Your task to perform on an android device: change notification settings in the gmail app Image 0: 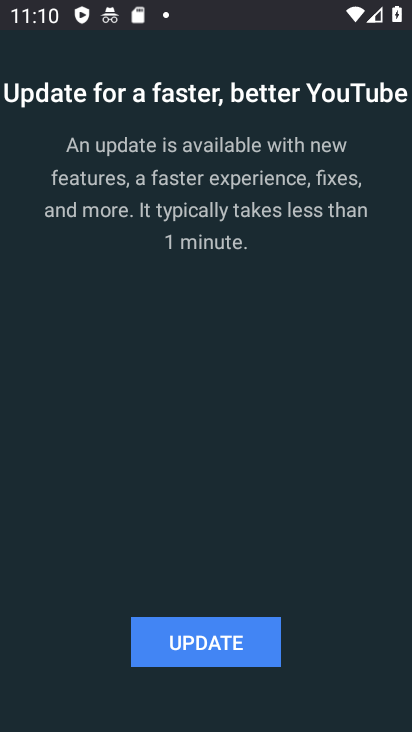
Step 0: press home button
Your task to perform on an android device: change notification settings in the gmail app Image 1: 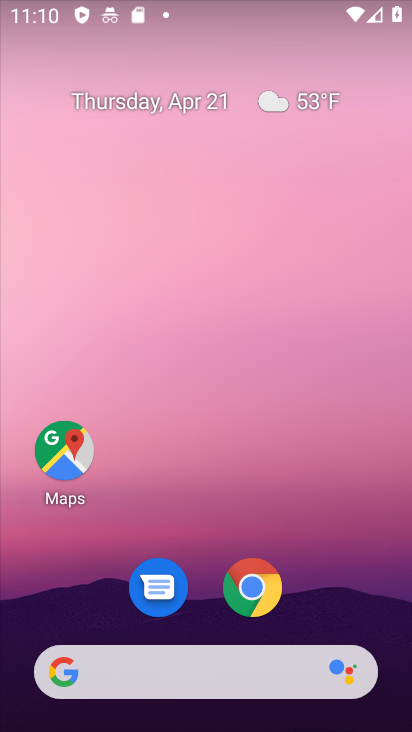
Step 1: drag from (210, 648) to (189, 233)
Your task to perform on an android device: change notification settings in the gmail app Image 2: 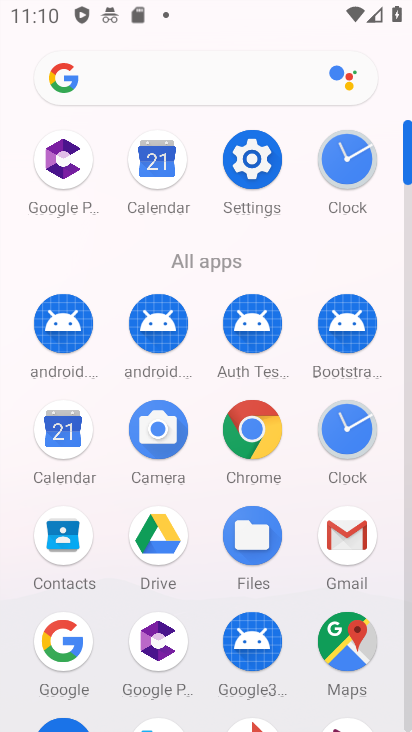
Step 2: click (349, 542)
Your task to perform on an android device: change notification settings in the gmail app Image 3: 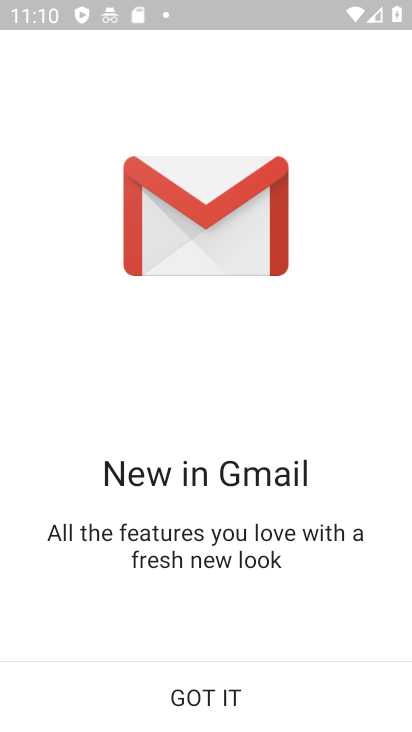
Step 3: click (208, 692)
Your task to perform on an android device: change notification settings in the gmail app Image 4: 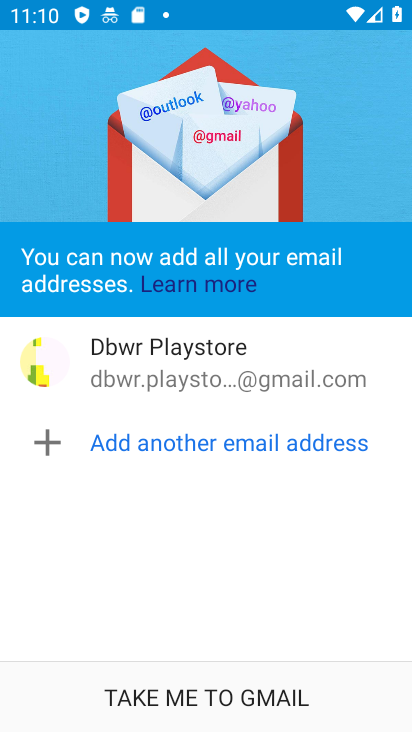
Step 4: click (197, 690)
Your task to perform on an android device: change notification settings in the gmail app Image 5: 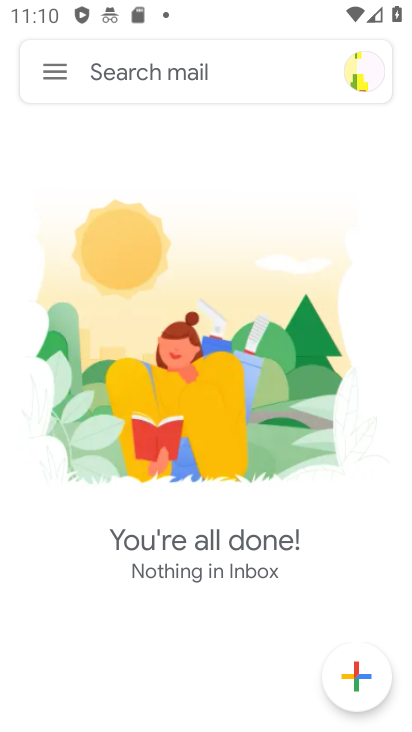
Step 5: click (51, 71)
Your task to perform on an android device: change notification settings in the gmail app Image 6: 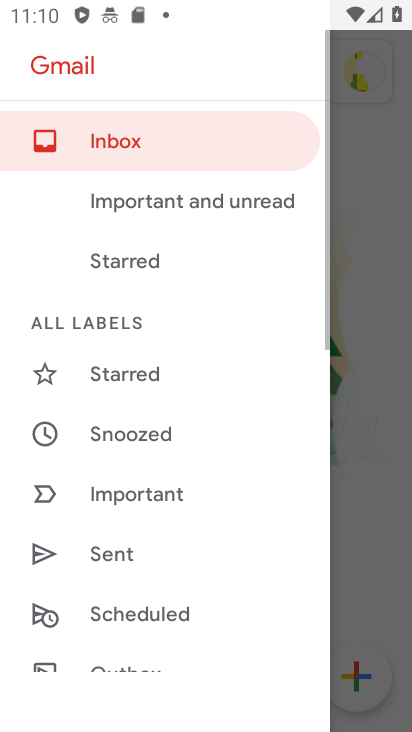
Step 6: drag from (138, 646) to (121, 292)
Your task to perform on an android device: change notification settings in the gmail app Image 7: 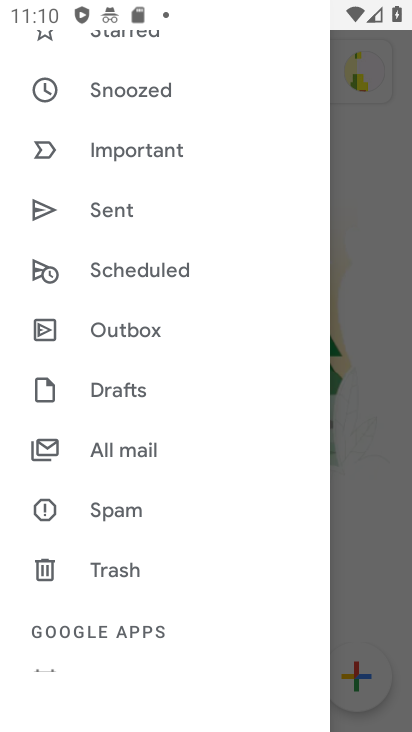
Step 7: drag from (142, 654) to (124, 327)
Your task to perform on an android device: change notification settings in the gmail app Image 8: 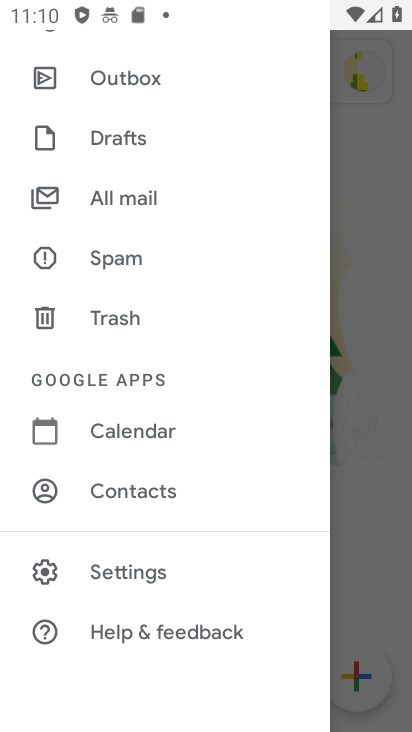
Step 8: click (113, 567)
Your task to perform on an android device: change notification settings in the gmail app Image 9: 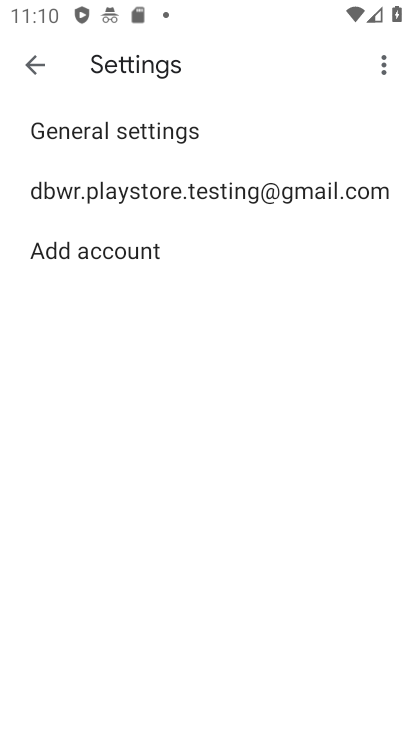
Step 9: click (225, 191)
Your task to perform on an android device: change notification settings in the gmail app Image 10: 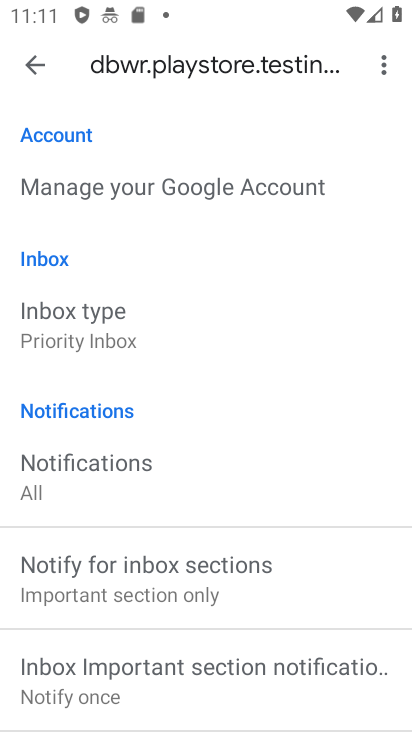
Step 10: click (79, 467)
Your task to perform on an android device: change notification settings in the gmail app Image 11: 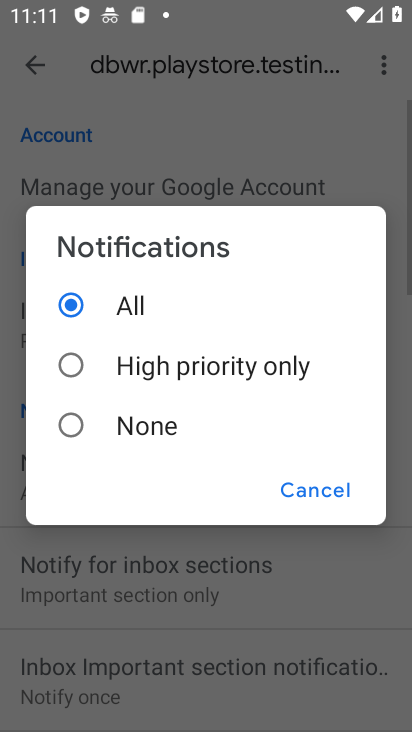
Step 11: click (68, 420)
Your task to perform on an android device: change notification settings in the gmail app Image 12: 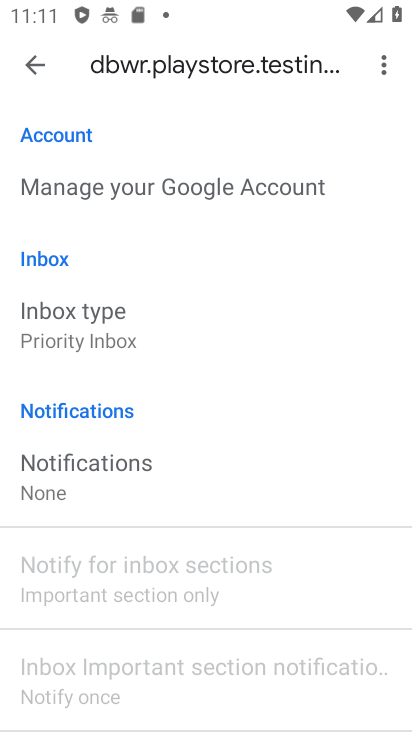
Step 12: task complete